Your task to perform on an android device: What is the recent news? Image 0: 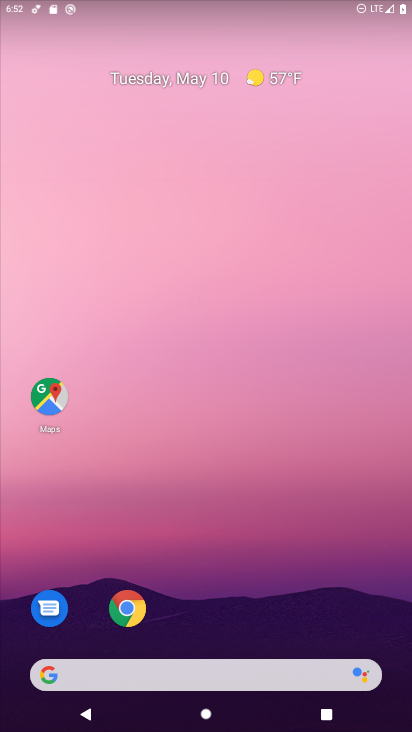
Step 0: drag from (271, 629) to (250, 73)
Your task to perform on an android device: What is the recent news? Image 1: 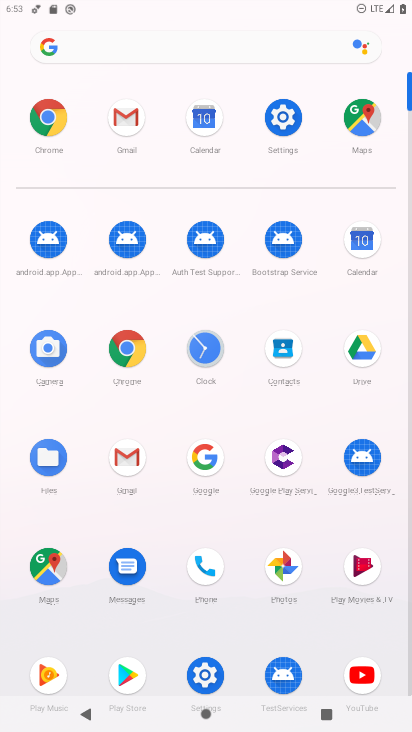
Step 1: click (123, 331)
Your task to perform on an android device: What is the recent news? Image 2: 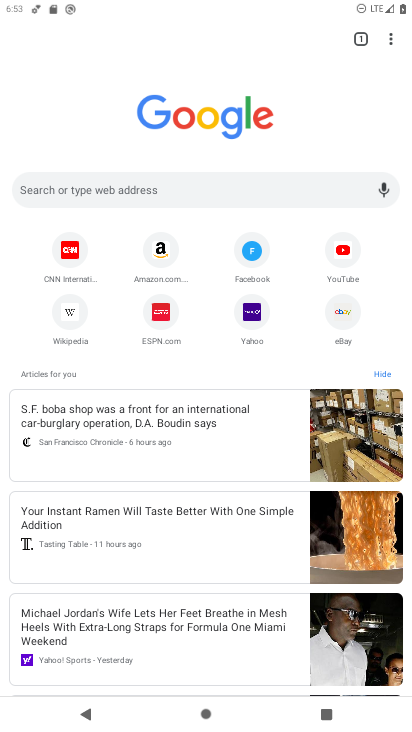
Step 2: click (183, 413)
Your task to perform on an android device: What is the recent news? Image 3: 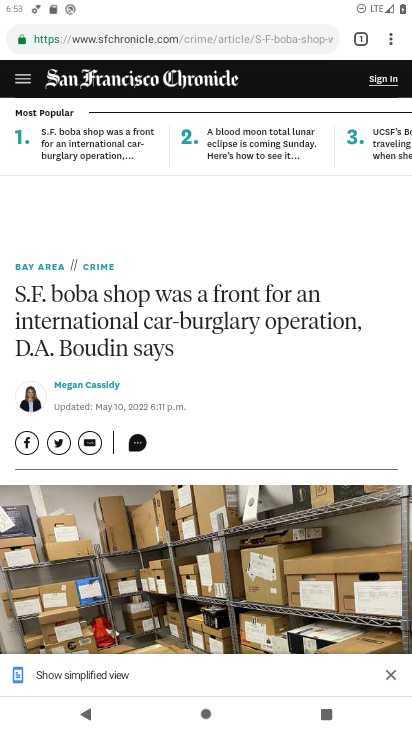
Step 3: task complete